Your task to perform on an android device: toggle location history Image 0: 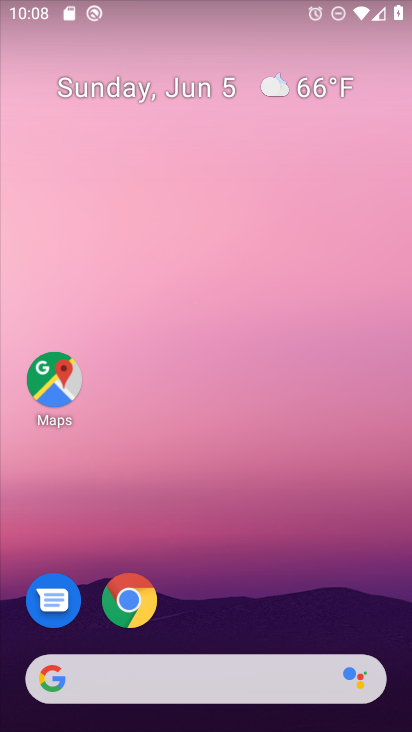
Step 0: drag from (369, 636) to (385, 130)
Your task to perform on an android device: toggle location history Image 1: 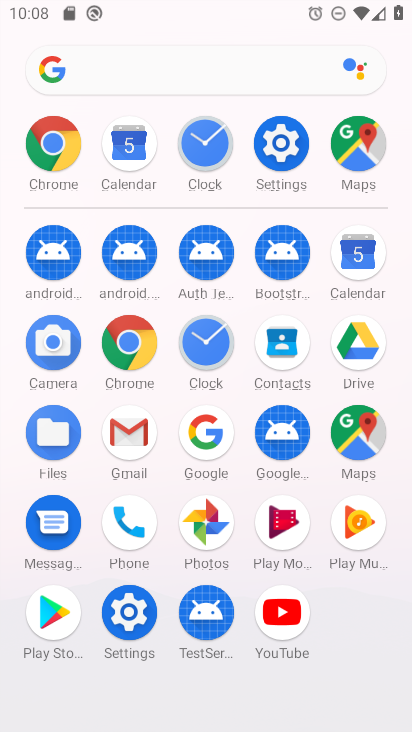
Step 1: click (121, 608)
Your task to perform on an android device: toggle location history Image 2: 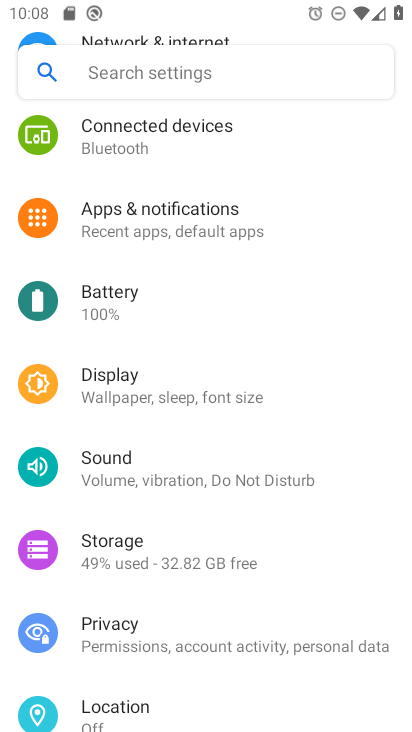
Step 2: click (164, 707)
Your task to perform on an android device: toggle location history Image 3: 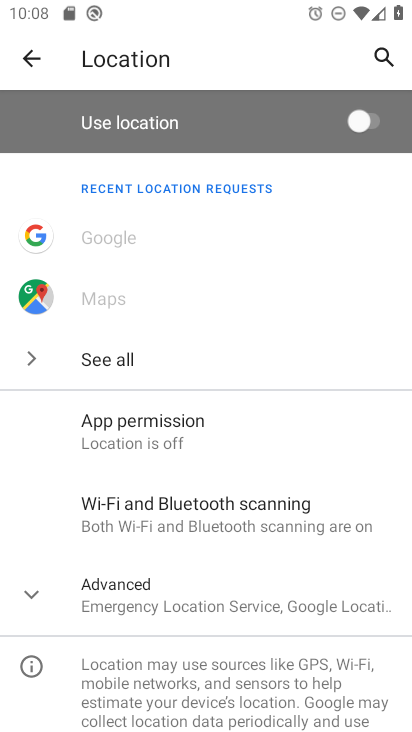
Step 3: click (161, 584)
Your task to perform on an android device: toggle location history Image 4: 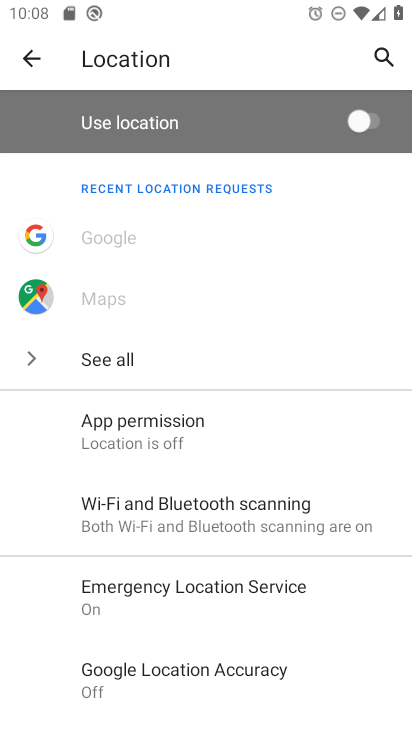
Step 4: drag from (214, 674) to (248, 311)
Your task to perform on an android device: toggle location history Image 5: 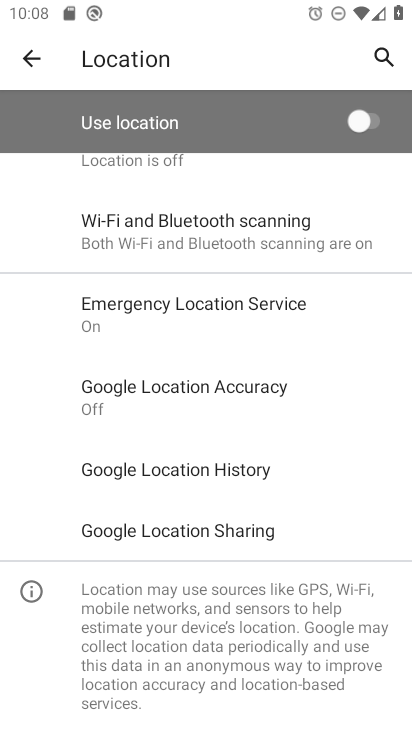
Step 5: click (215, 460)
Your task to perform on an android device: toggle location history Image 6: 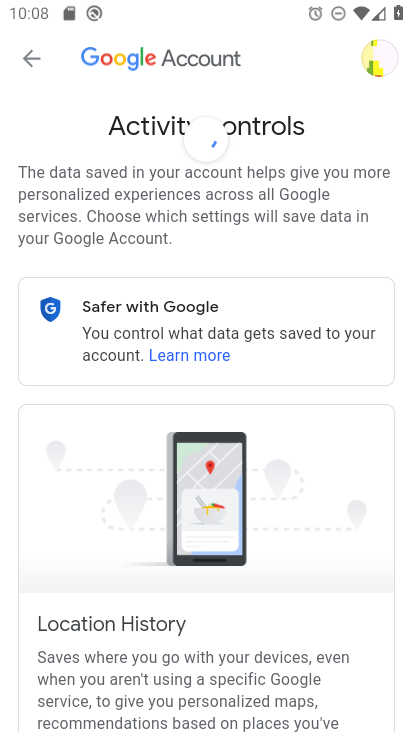
Step 6: drag from (314, 666) to (244, 196)
Your task to perform on an android device: toggle location history Image 7: 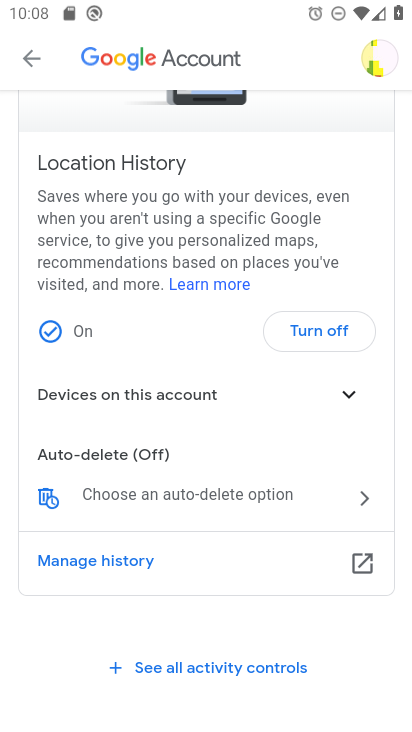
Step 7: click (330, 342)
Your task to perform on an android device: toggle location history Image 8: 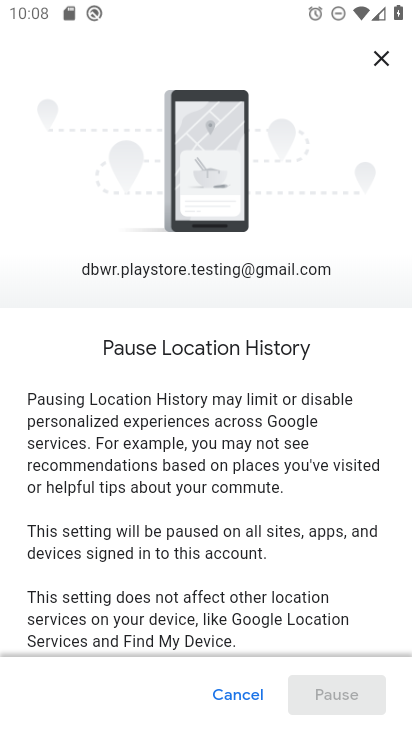
Step 8: task complete